Your task to perform on an android device: Open Youtube and go to the subscriptions tab Image 0: 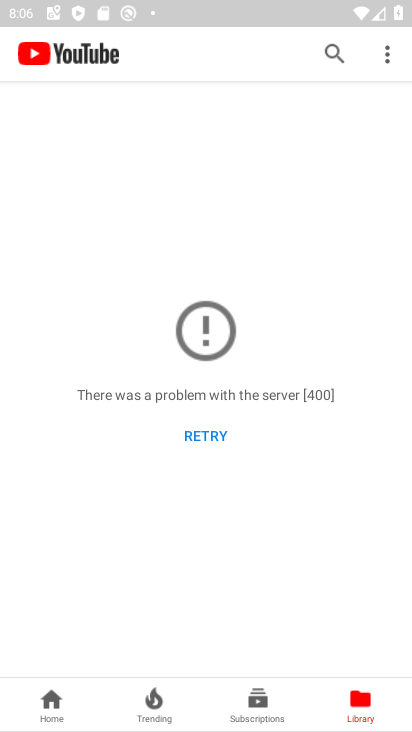
Step 0: press home button
Your task to perform on an android device: Open Youtube and go to the subscriptions tab Image 1: 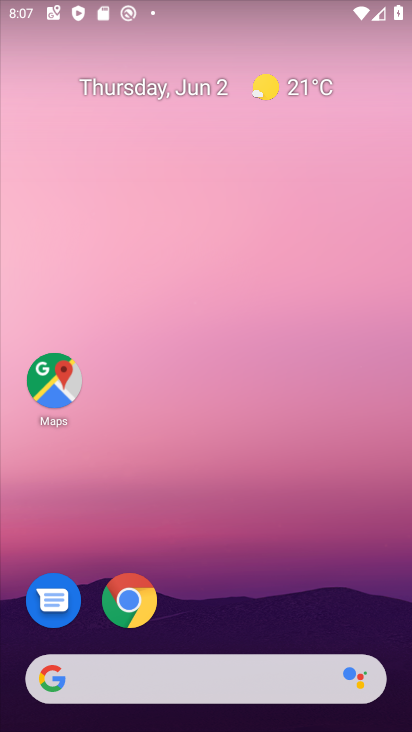
Step 1: drag from (375, 613) to (372, 181)
Your task to perform on an android device: Open Youtube and go to the subscriptions tab Image 2: 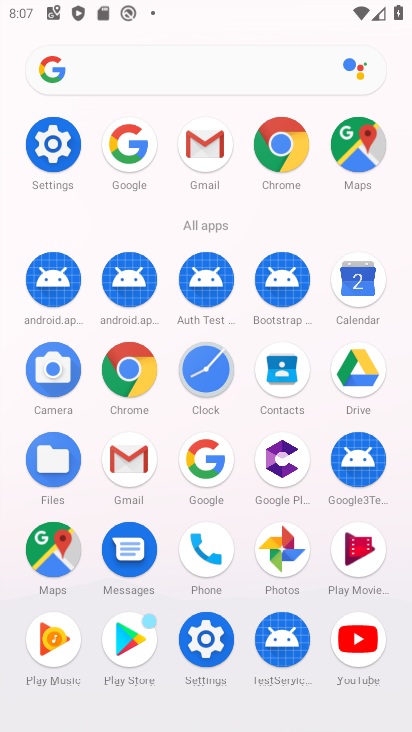
Step 2: click (364, 651)
Your task to perform on an android device: Open Youtube and go to the subscriptions tab Image 3: 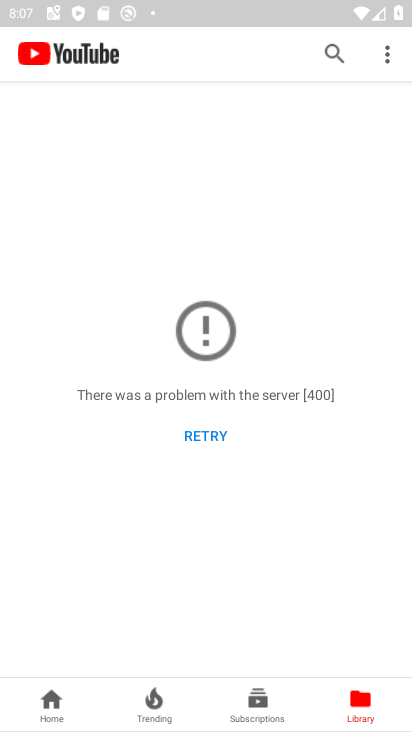
Step 3: click (255, 698)
Your task to perform on an android device: Open Youtube and go to the subscriptions tab Image 4: 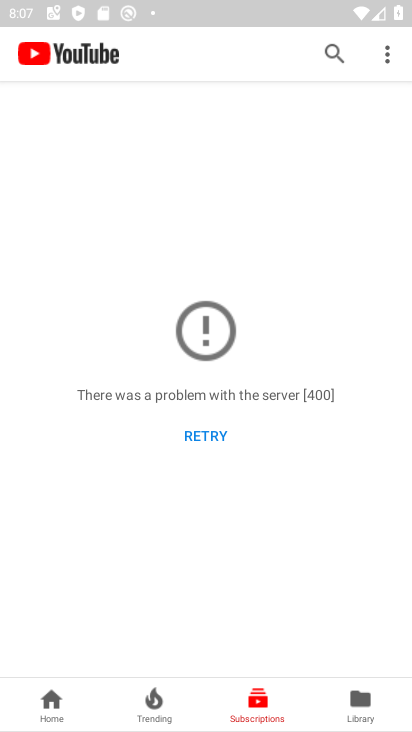
Step 4: task complete